Your task to perform on an android device: What's the weather like in Paris? Image 0: 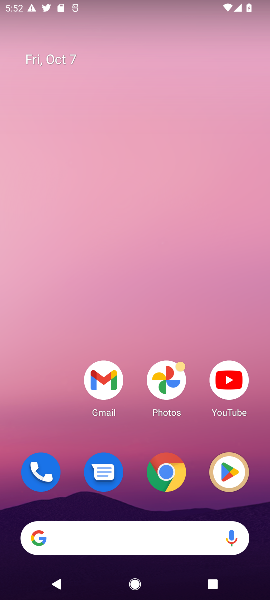
Step 0: click (166, 485)
Your task to perform on an android device: What's the weather like in Paris? Image 1: 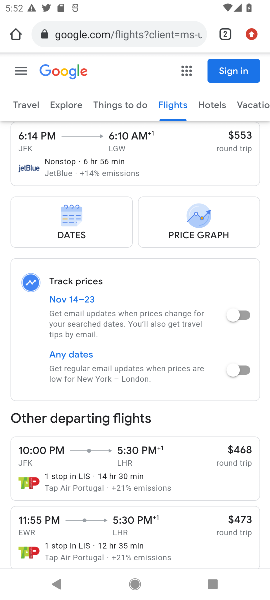
Step 1: click (96, 26)
Your task to perform on an android device: What's the weather like in Paris? Image 2: 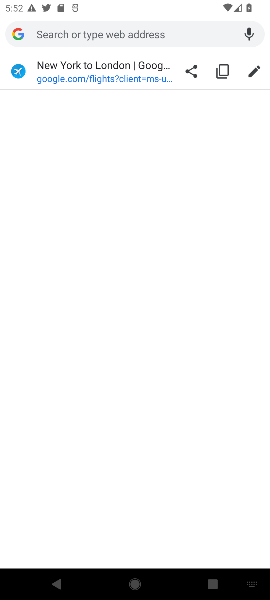
Step 2: type "weather like in Paris"
Your task to perform on an android device: What's the weather like in Paris? Image 3: 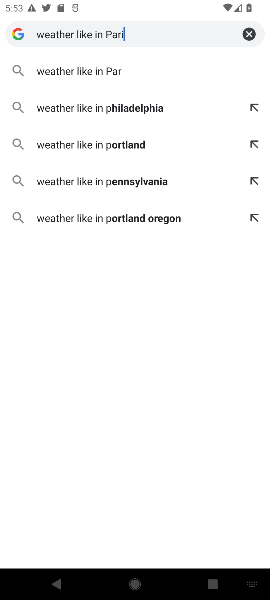
Step 3: type ""
Your task to perform on an android device: What's the weather like in Paris? Image 4: 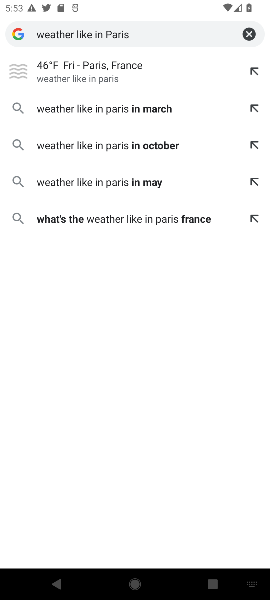
Step 4: click (74, 82)
Your task to perform on an android device: What's the weather like in Paris? Image 5: 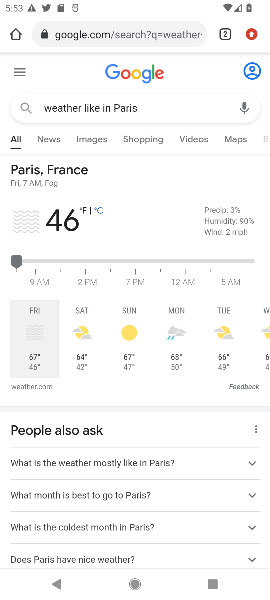
Step 5: task complete